Your task to perform on an android device: Set the phone to "Do not disturb". Image 0: 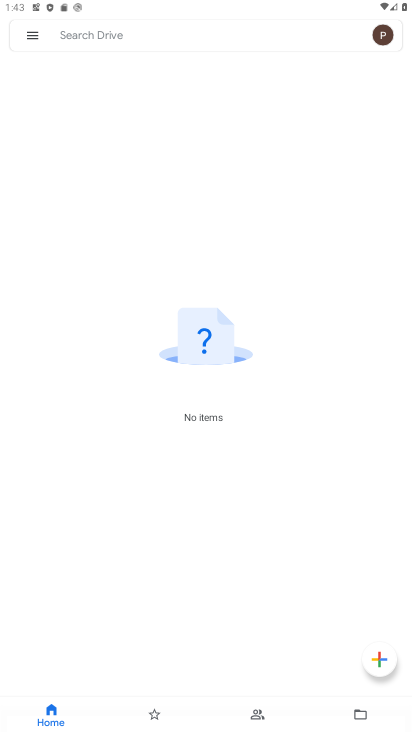
Step 0: press home button
Your task to perform on an android device: Set the phone to "Do not disturb". Image 1: 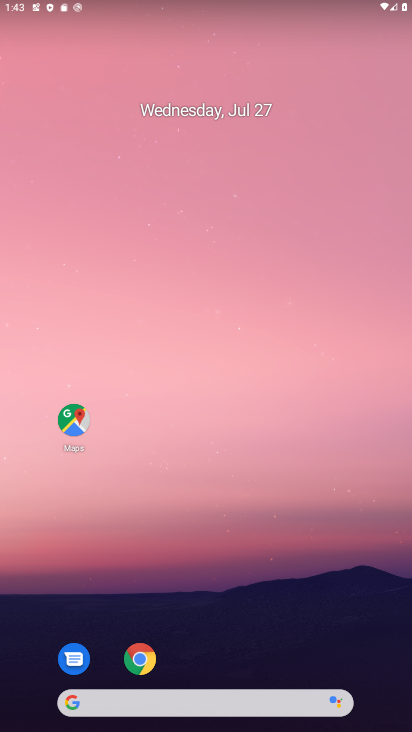
Step 1: drag from (407, 123) to (249, 58)
Your task to perform on an android device: Set the phone to "Do not disturb". Image 2: 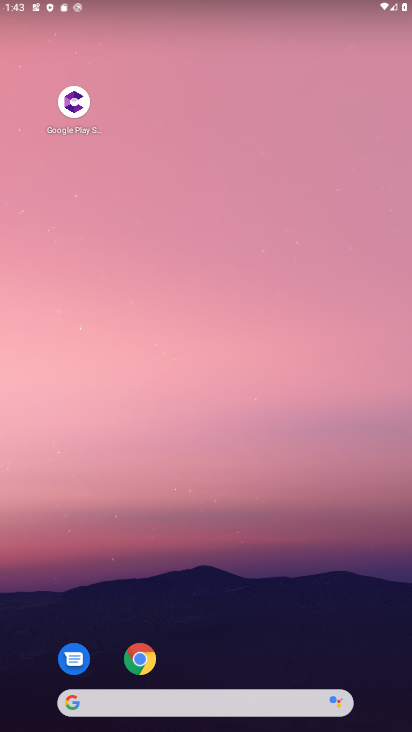
Step 2: press home button
Your task to perform on an android device: Set the phone to "Do not disturb". Image 3: 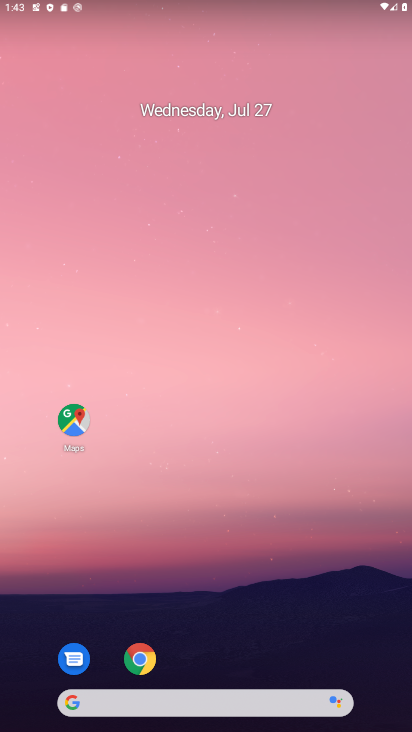
Step 3: drag from (260, 627) to (285, 163)
Your task to perform on an android device: Set the phone to "Do not disturb". Image 4: 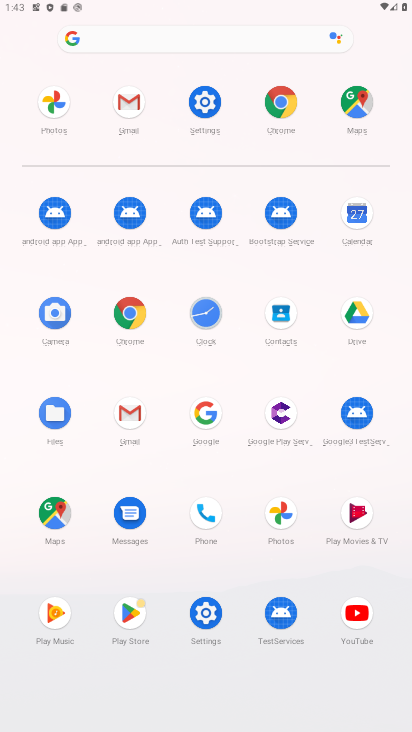
Step 4: press home button
Your task to perform on an android device: Set the phone to "Do not disturb". Image 5: 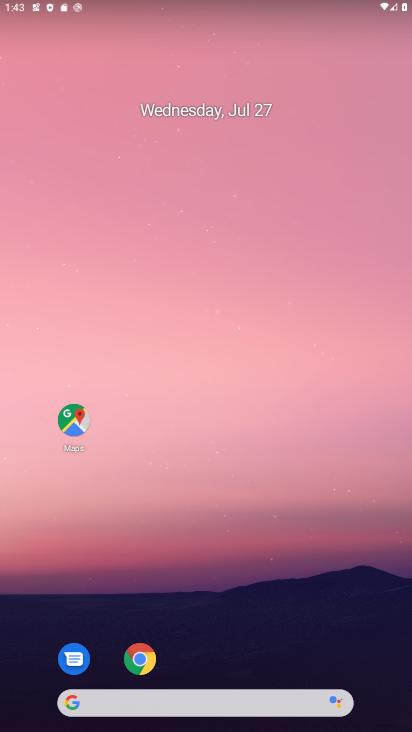
Step 5: drag from (211, 10) to (227, 605)
Your task to perform on an android device: Set the phone to "Do not disturb". Image 6: 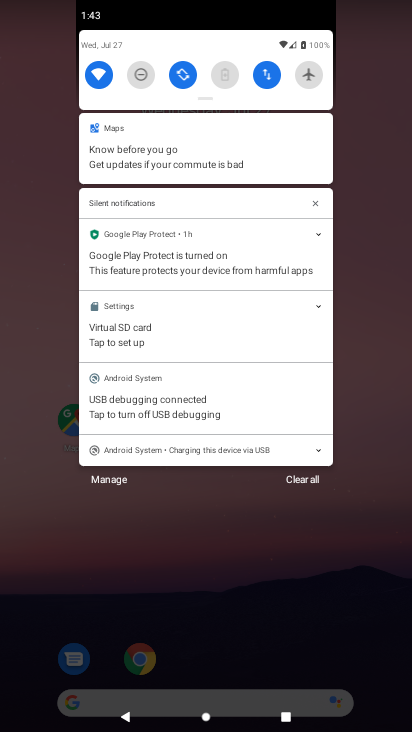
Step 6: click (145, 71)
Your task to perform on an android device: Set the phone to "Do not disturb". Image 7: 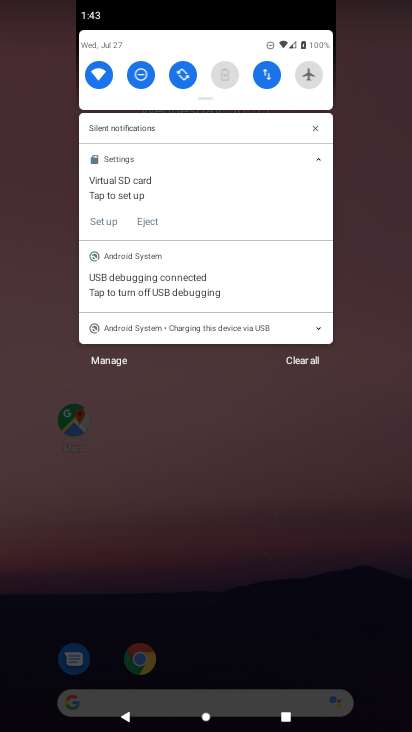
Step 7: task complete